Your task to perform on an android device: Set the phone to "Do not disturb". Image 0: 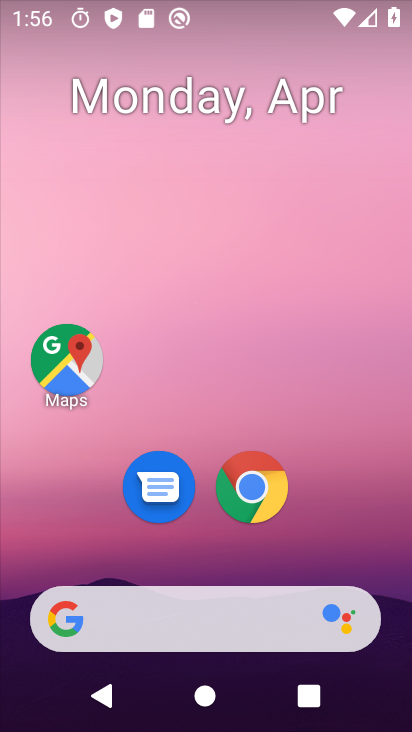
Step 0: drag from (296, 663) to (303, 221)
Your task to perform on an android device: Set the phone to "Do not disturb". Image 1: 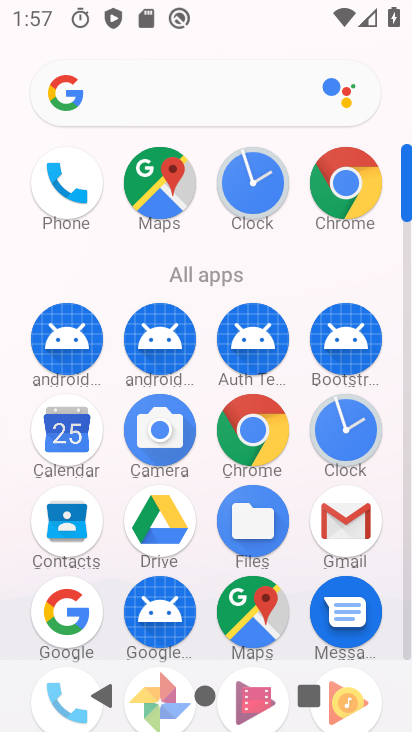
Step 1: drag from (102, 593) to (108, 468)
Your task to perform on an android device: Set the phone to "Do not disturb". Image 2: 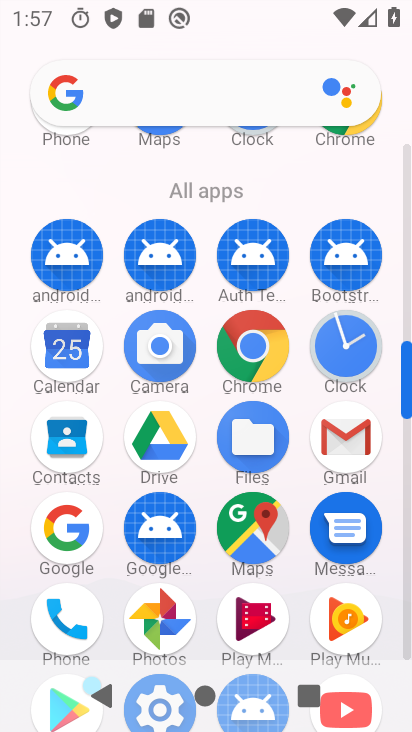
Step 2: drag from (117, 571) to (178, 459)
Your task to perform on an android device: Set the phone to "Do not disturb". Image 3: 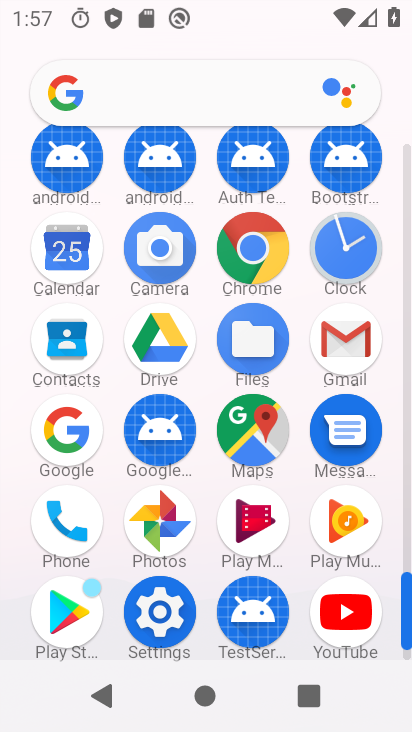
Step 3: drag from (126, 680) to (169, 618)
Your task to perform on an android device: Set the phone to "Do not disturb". Image 4: 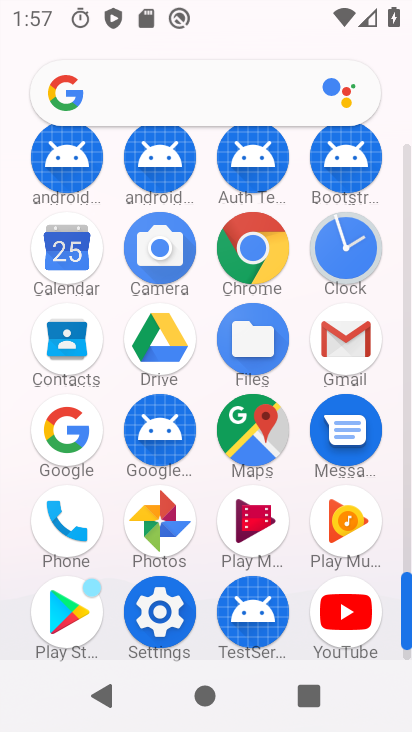
Step 4: click (169, 618)
Your task to perform on an android device: Set the phone to "Do not disturb". Image 5: 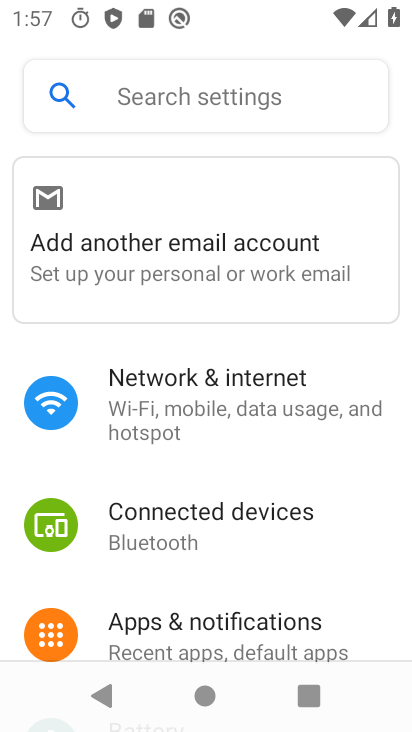
Step 5: click (189, 115)
Your task to perform on an android device: Set the phone to "Do not disturb". Image 6: 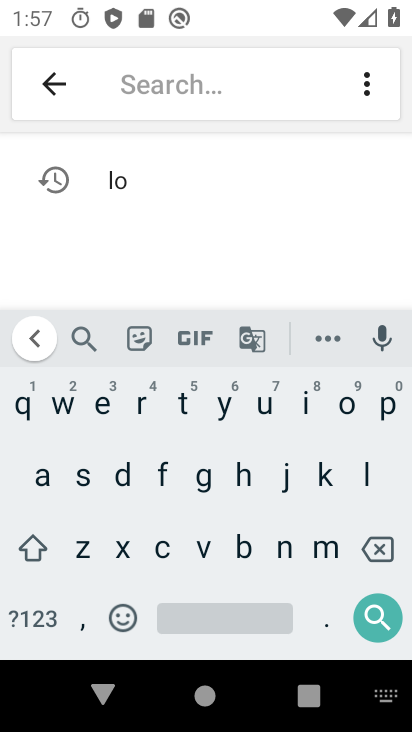
Step 6: click (119, 474)
Your task to perform on an android device: Set the phone to "Do not disturb". Image 7: 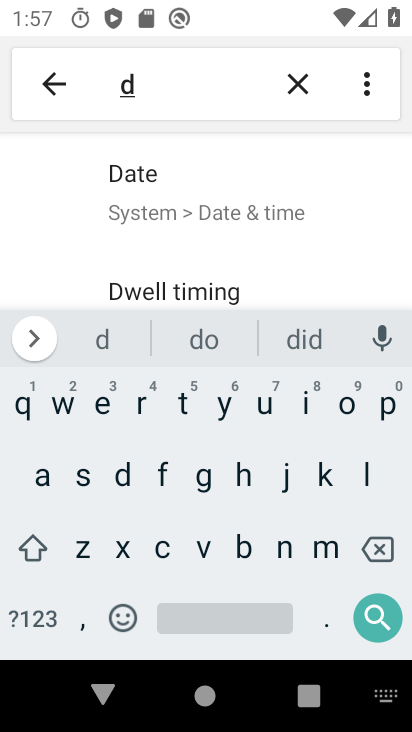
Step 7: click (280, 548)
Your task to perform on an android device: Set the phone to "Do not disturb". Image 8: 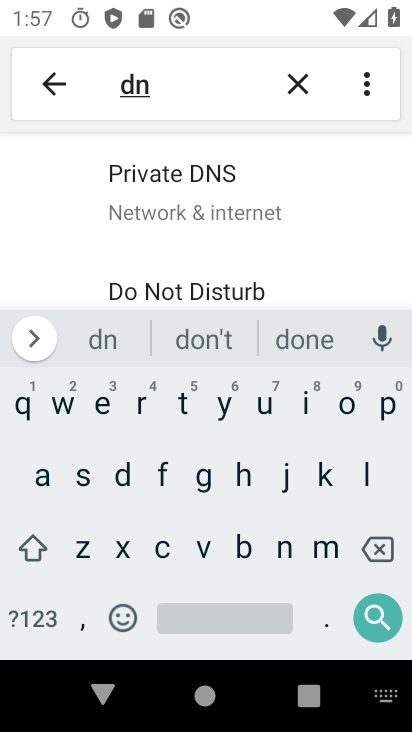
Step 8: click (241, 285)
Your task to perform on an android device: Set the phone to "Do not disturb". Image 9: 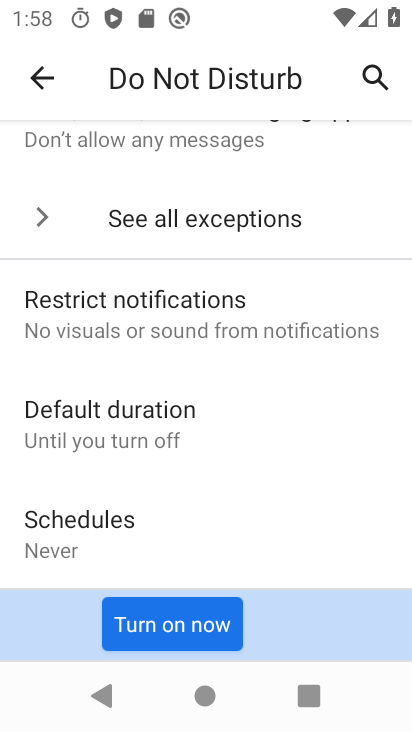
Step 9: click (140, 631)
Your task to perform on an android device: Set the phone to "Do not disturb". Image 10: 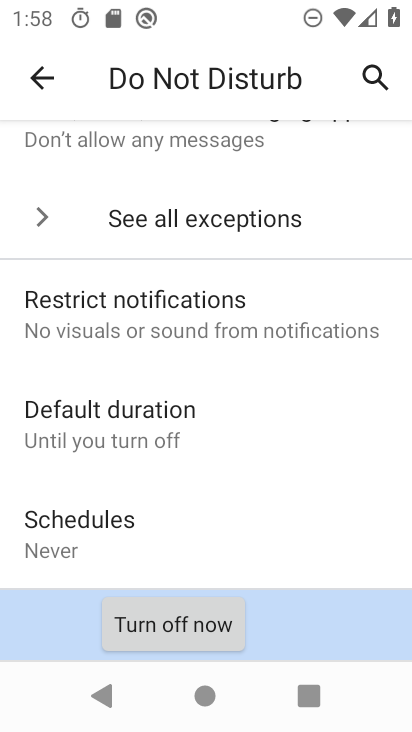
Step 10: task complete